Your task to perform on an android device: install app "LinkedIn" Image 0: 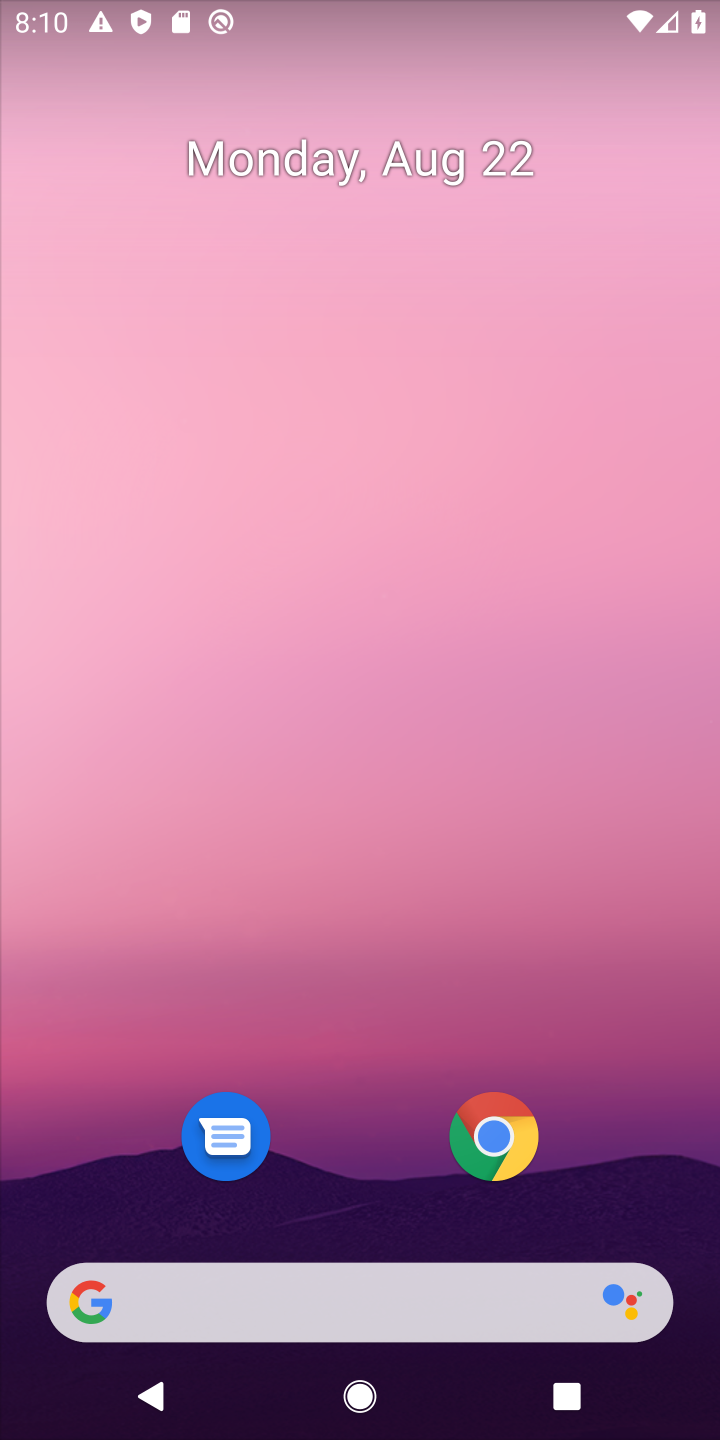
Step 0: drag from (330, 1267) to (357, 415)
Your task to perform on an android device: install app "LinkedIn" Image 1: 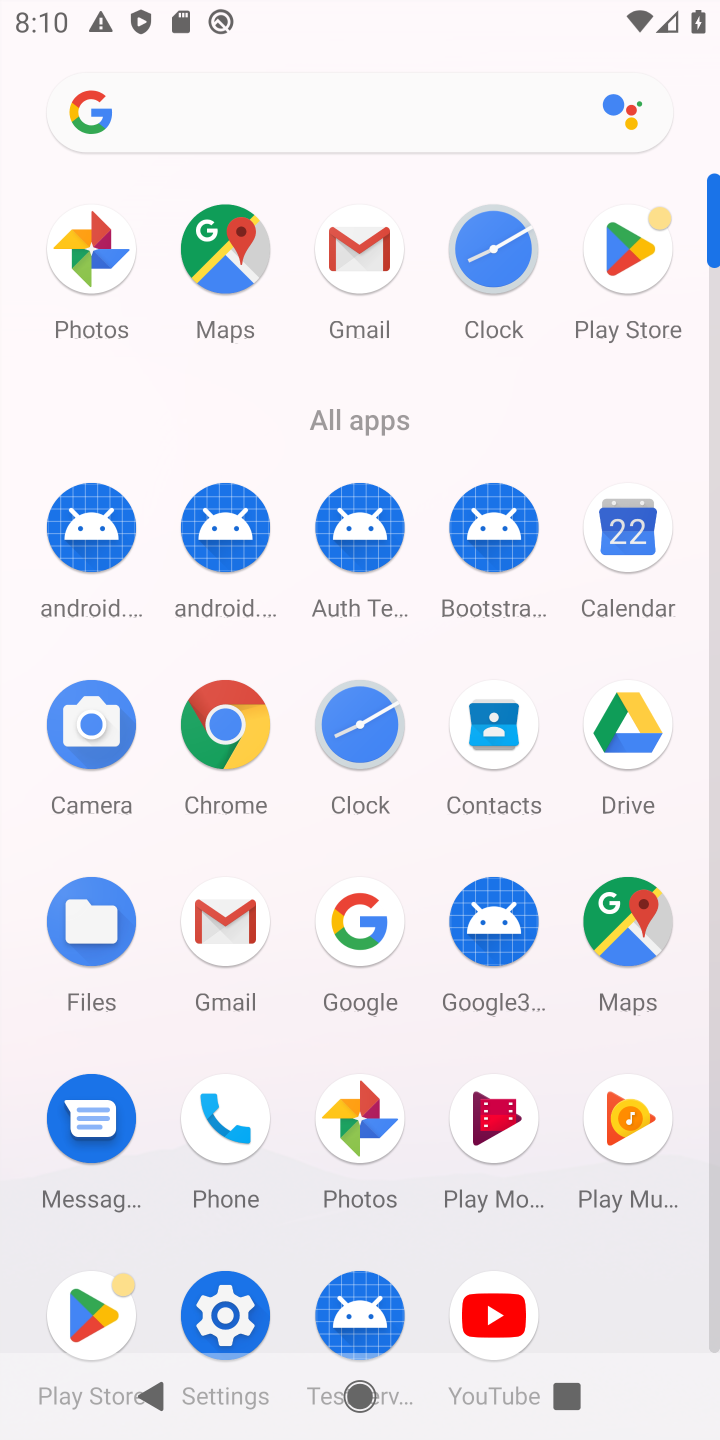
Step 1: click (622, 236)
Your task to perform on an android device: install app "LinkedIn" Image 2: 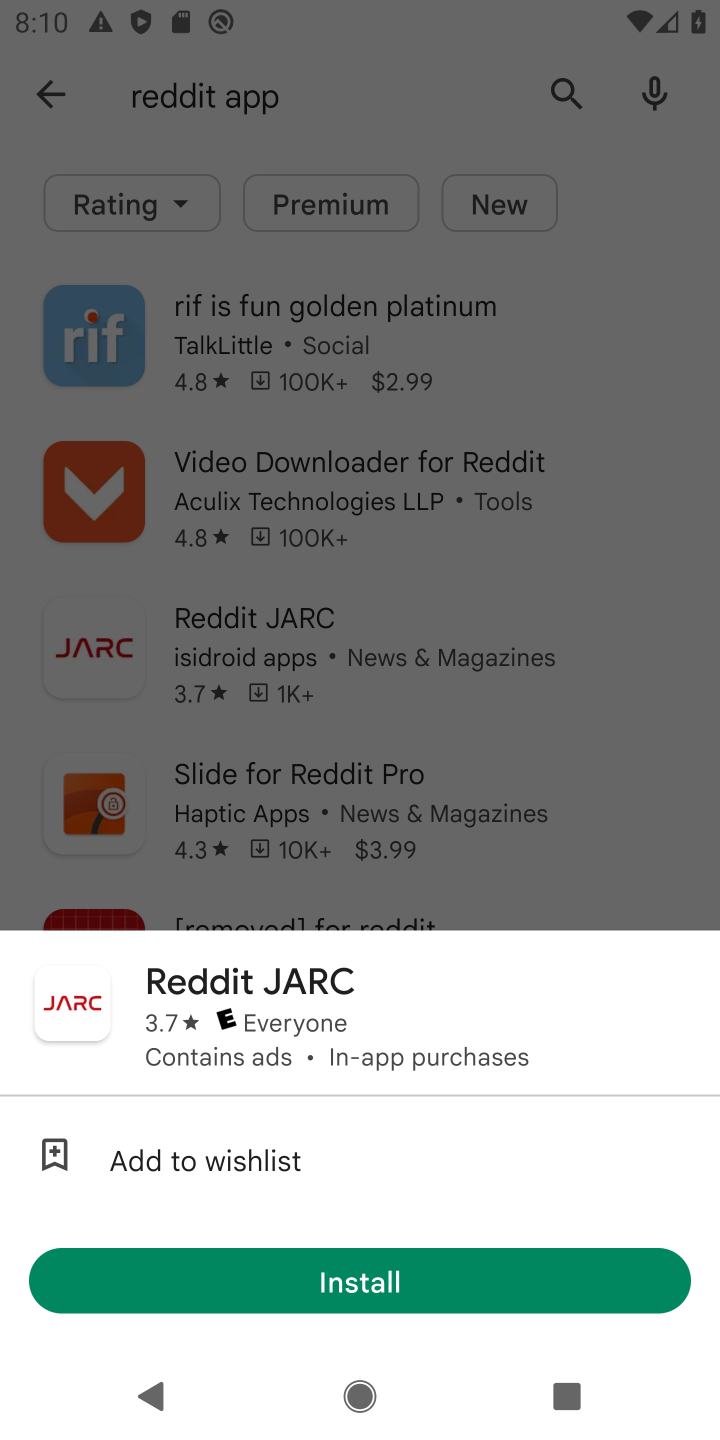
Step 2: click (69, 86)
Your task to perform on an android device: install app "LinkedIn" Image 3: 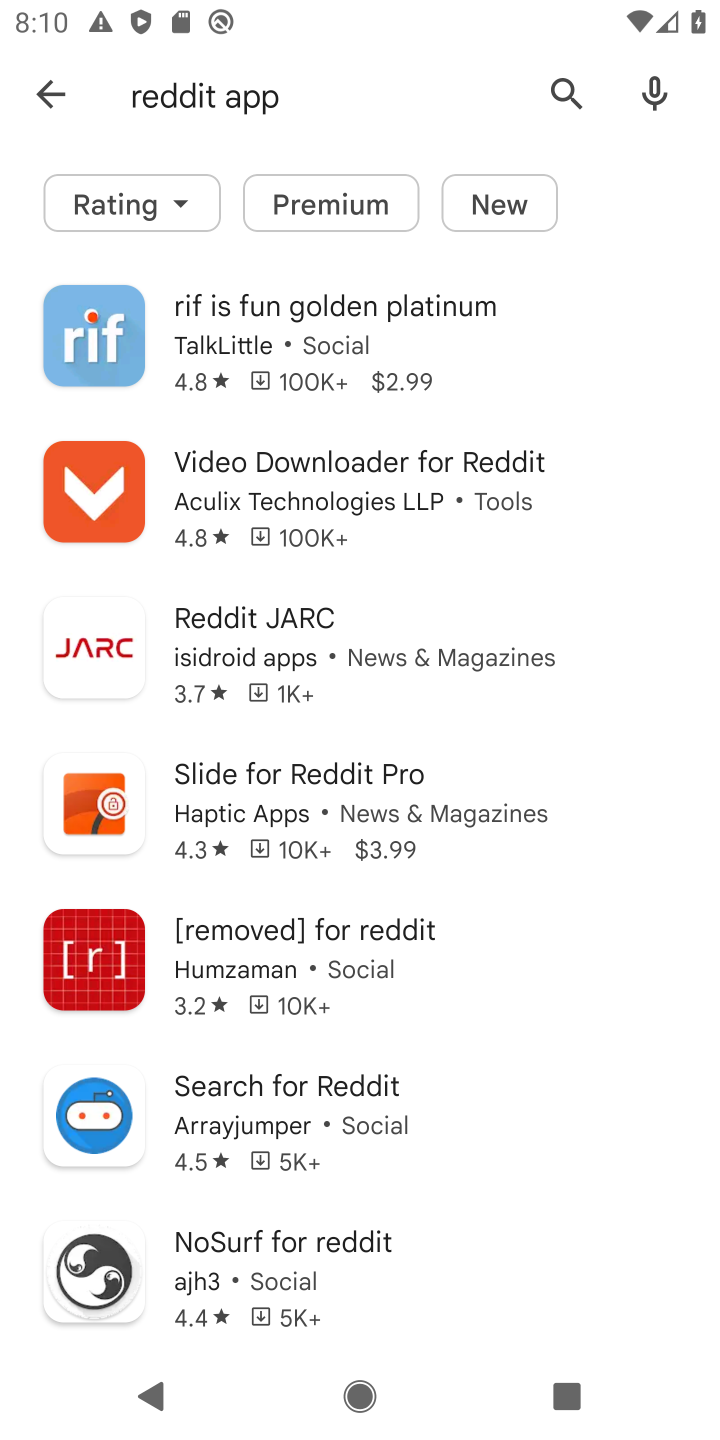
Step 3: click (69, 86)
Your task to perform on an android device: install app "LinkedIn" Image 4: 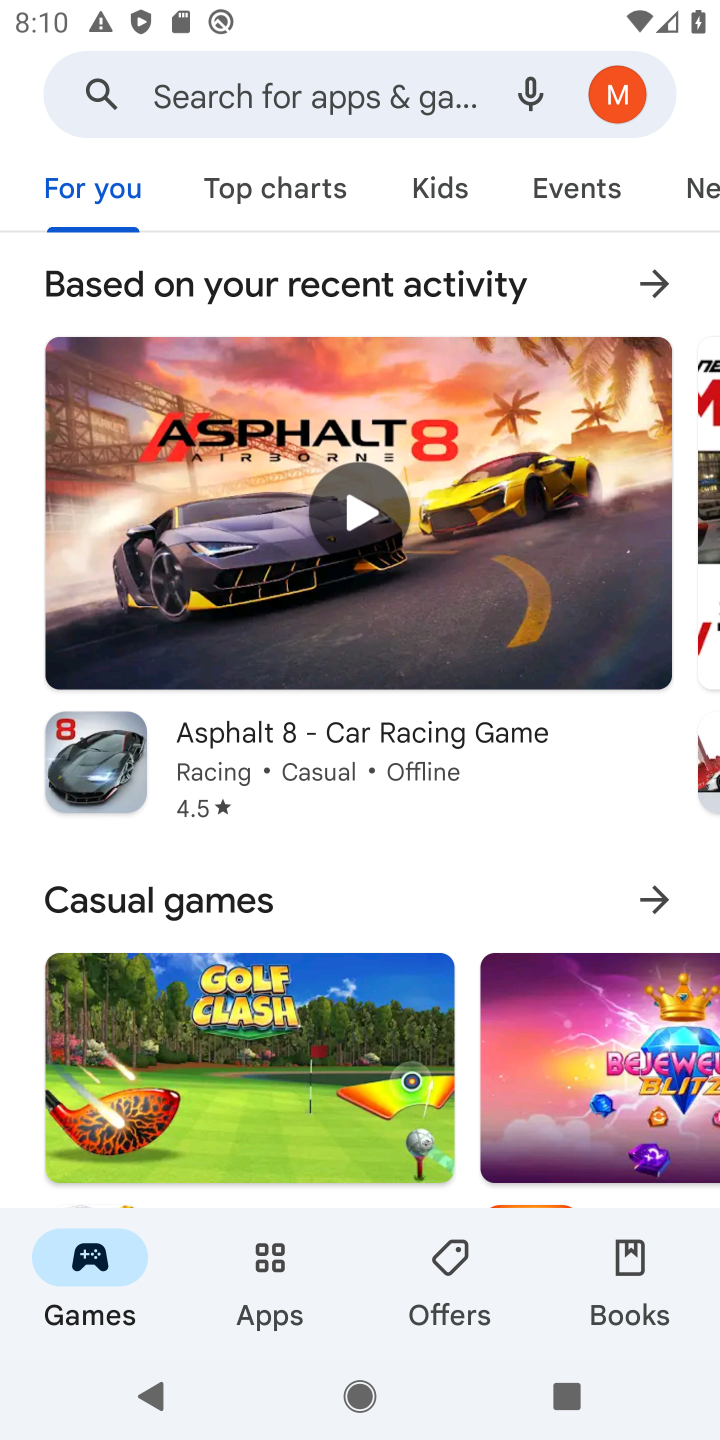
Step 4: click (375, 68)
Your task to perform on an android device: install app "LinkedIn" Image 5: 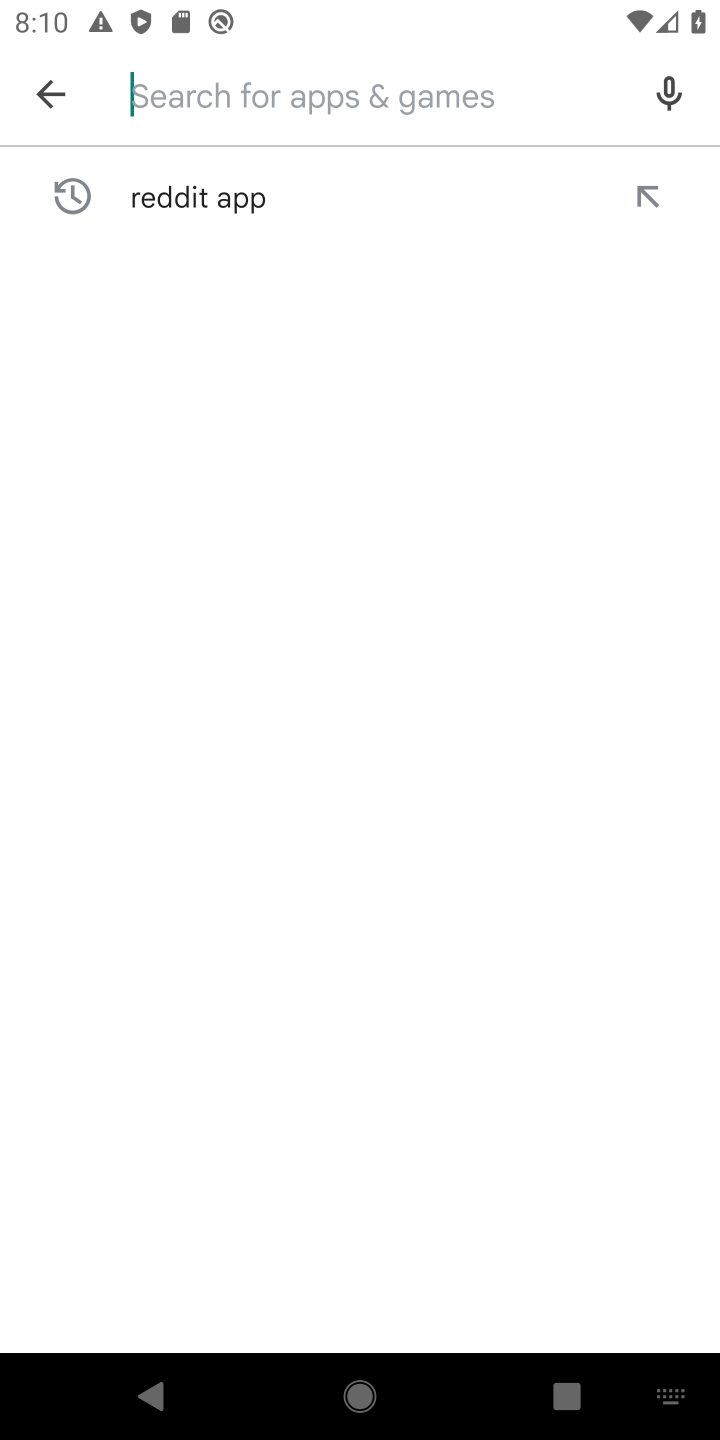
Step 5: type "LinkedIn "
Your task to perform on an android device: install app "LinkedIn" Image 6: 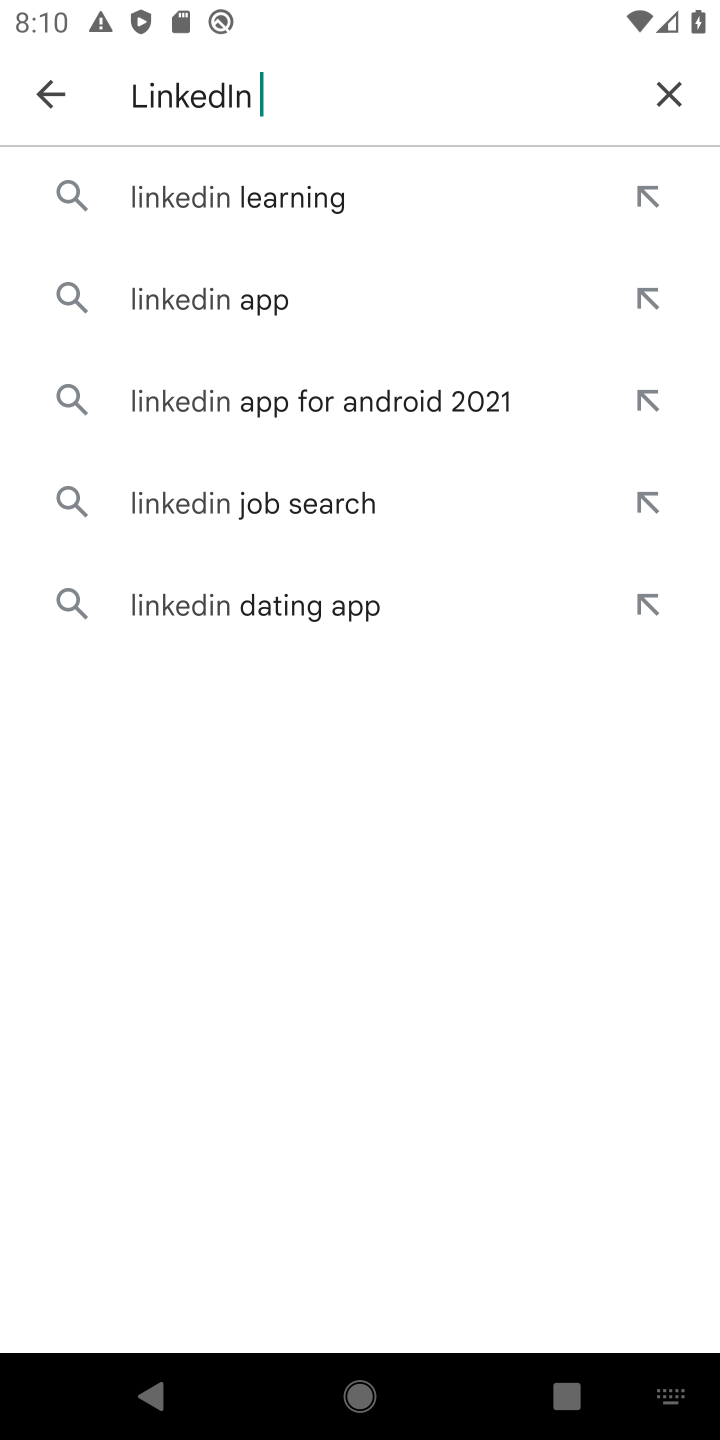
Step 6: click (230, 294)
Your task to perform on an android device: install app "LinkedIn" Image 7: 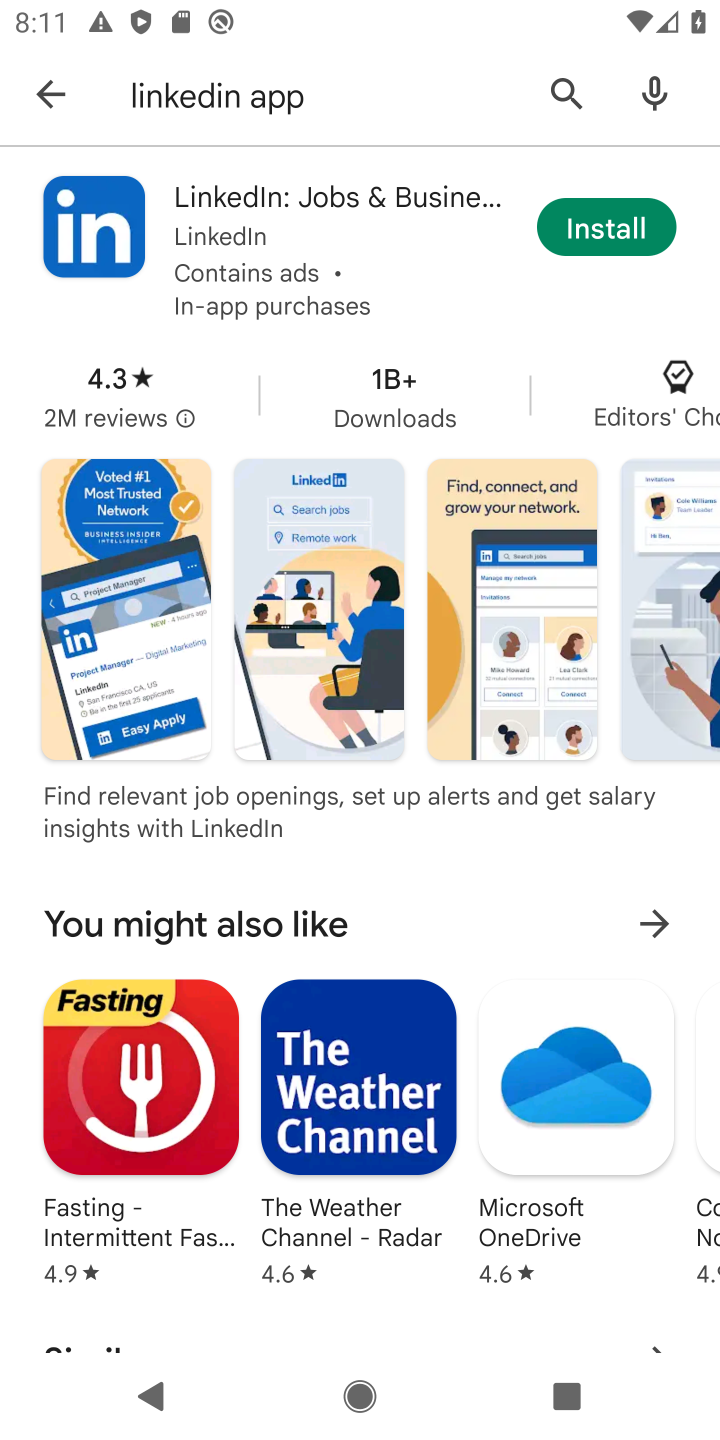
Step 7: click (590, 224)
Your task to perform on an android device: install app "LinkedIn" Image 8: 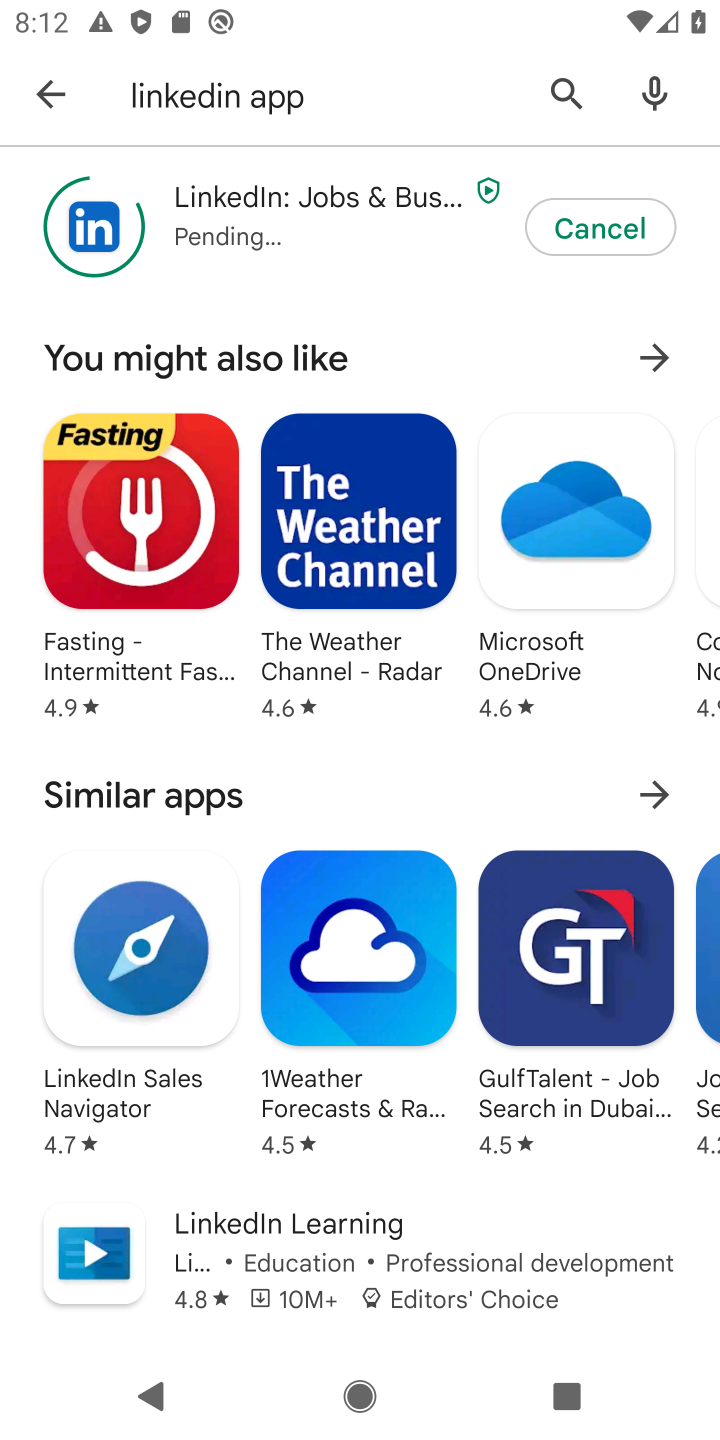
Step 8: task complete